Your task to perform on an android device: Open internet settings Image 0: 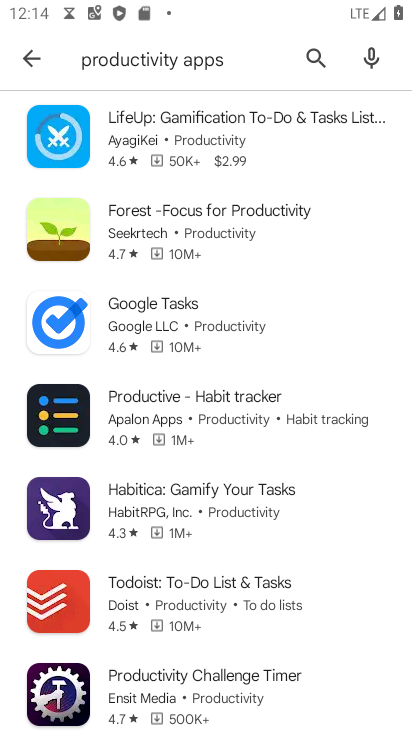
Step 0: press home button
Your task to perform on an android device: Open internet settings Image 1: 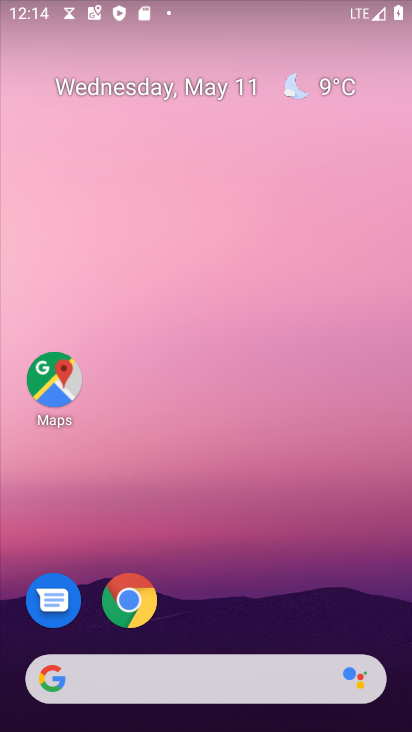
Step 1: drag from (243, 588) to (218, 114)
Your task to perform on an android device: Open internet settings Image 2: 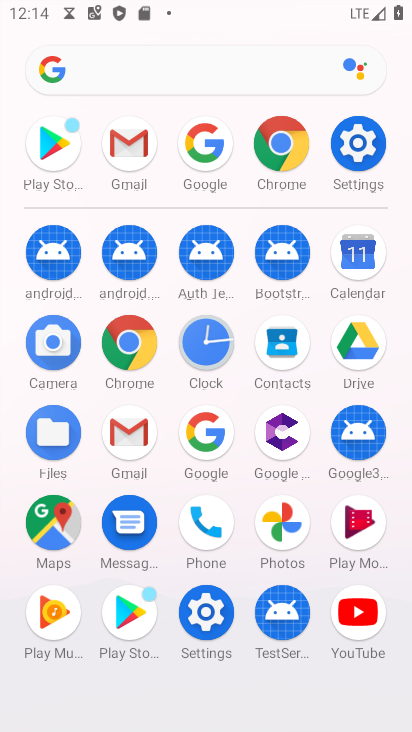
Step 2: click (355, 145)
Your task to perform on an android device: Open internet settings Image 3: 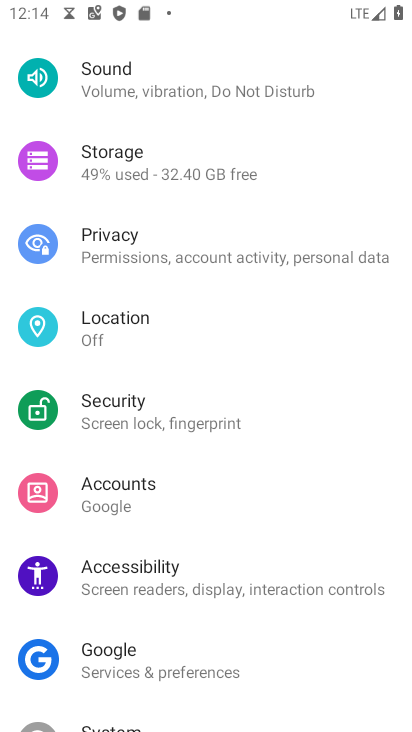
Step 3: drag from (220, 157) to (232, 559)
Your task to perform on an android device: Open internet settings Image 4: 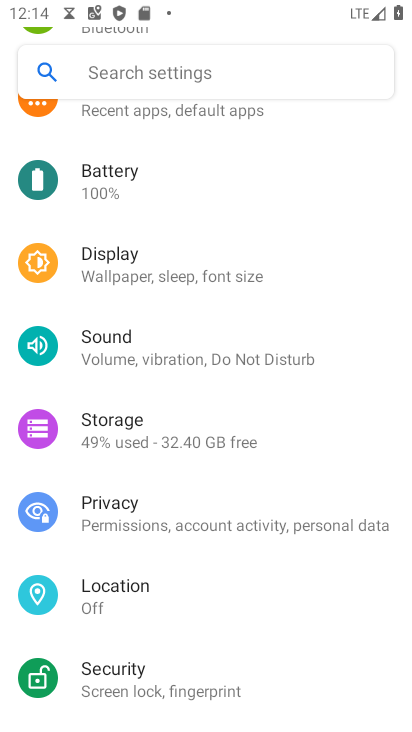
Step 4: drag from (199, 183) to (189, 606)
Your task to perform on an android device: Open internet settings Image 5: 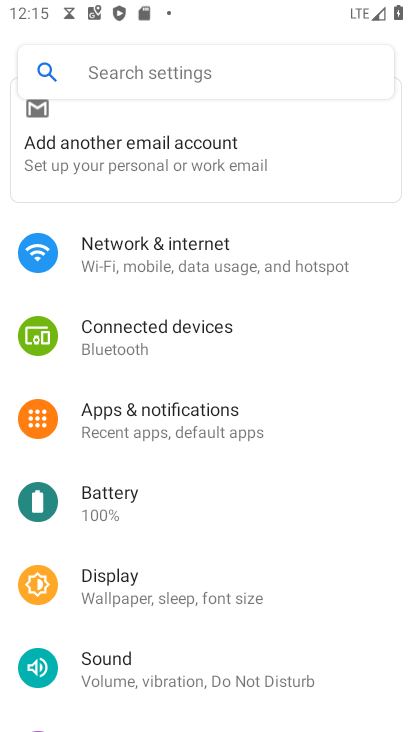
Step 5: click (186, 210)
Your task to perform on an android device: Open internet settings Image 6: 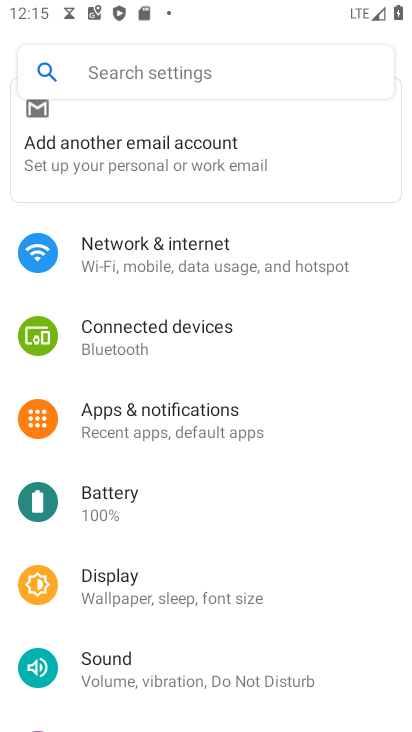
Step 6: click (197, 252)
Your task to perform on an android device: Open internet settings Image 7: 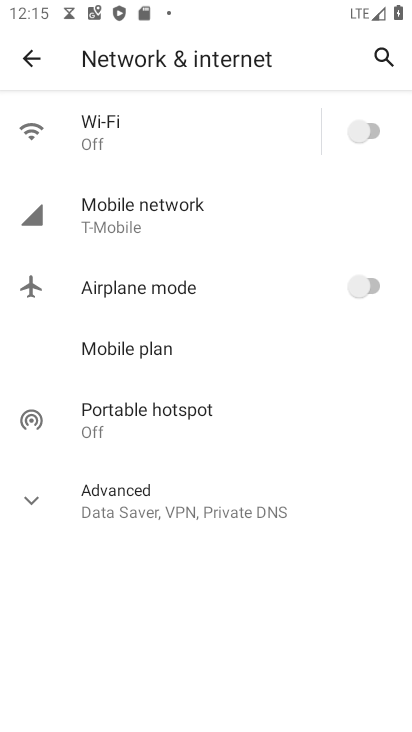
Step 7: task complete